Your task to perform on an android device: turn off priority inbox in the gmail app Image 0: 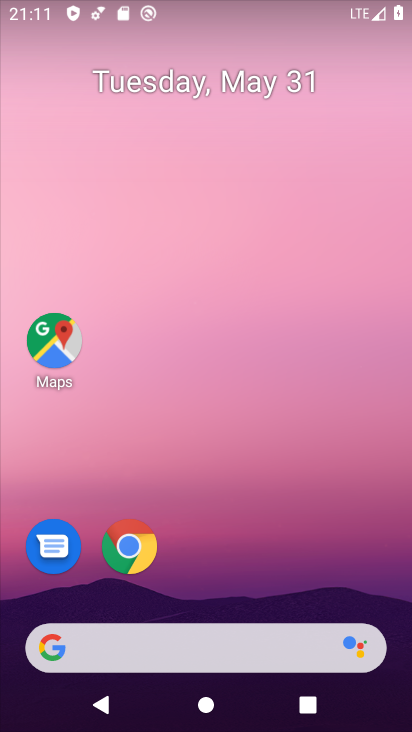
Step 0: drag from (394, 705) to (350, 130)
Your task to perform on an android device: turn off priority inbox in the gmail app Image 1: 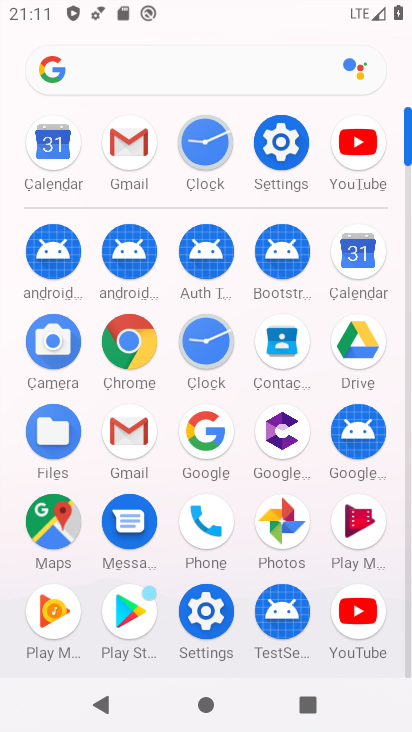
Step 1: click (109, 171)
Your task to perform on an android device: turn off priority inbox in the gmail app Image 2: 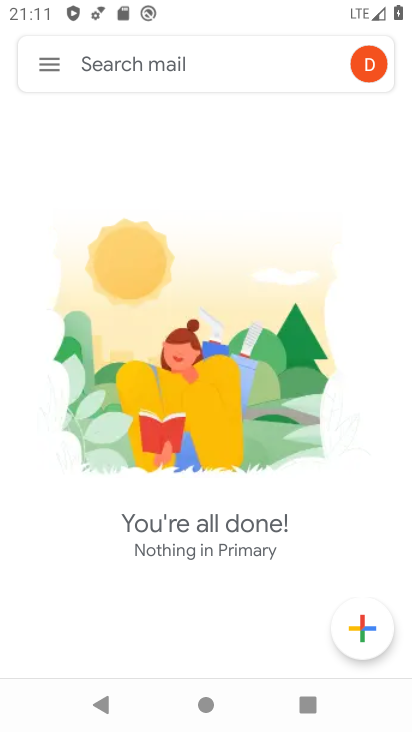
Step 2: click (44, 70)
Your task to perform on an android device: turn off priority inbox in the gmail app Image 3: 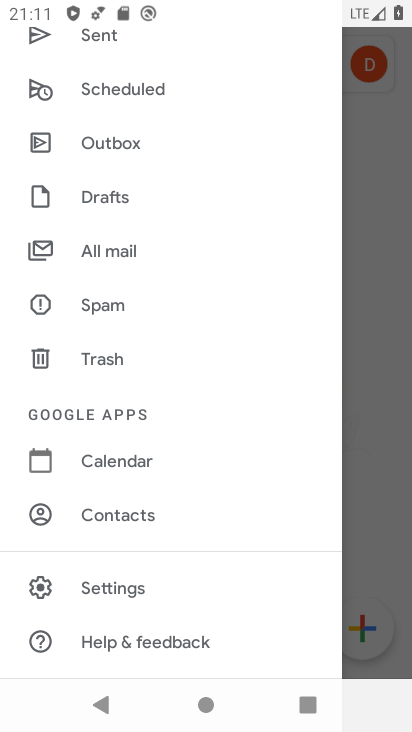
Step 3: click (100, 582)
Your task to perform on an android device: turn off priority inbox in the gmail app Image 4: 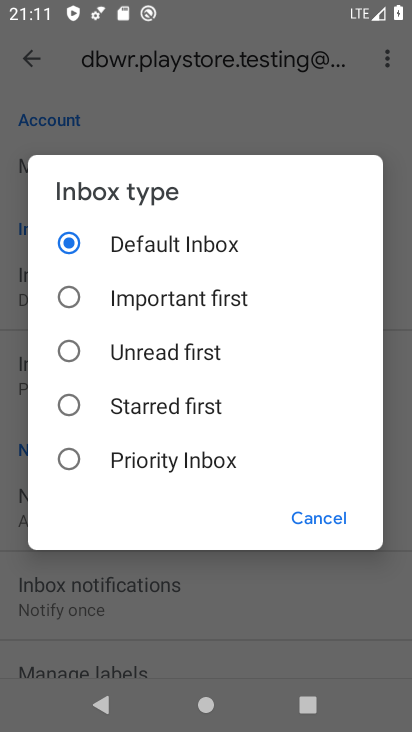
Step 4: task complete